Your task to perform on an android device: Go to privacy settings Image 0: 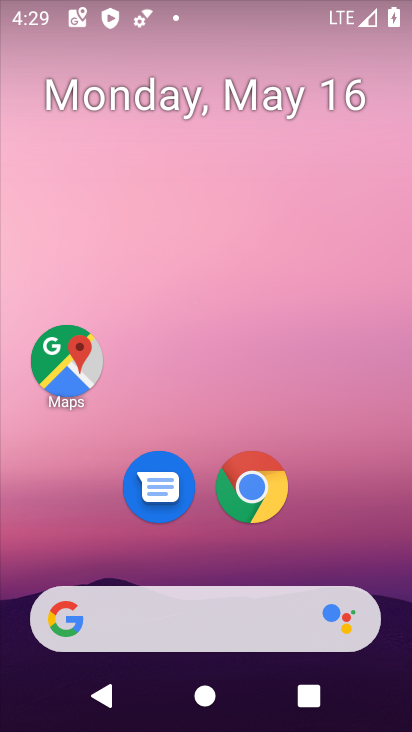
Step 0: drag from (404, 592) to (328, 171)
Your task to perform on an android device: Go to privacy settings Image 1: 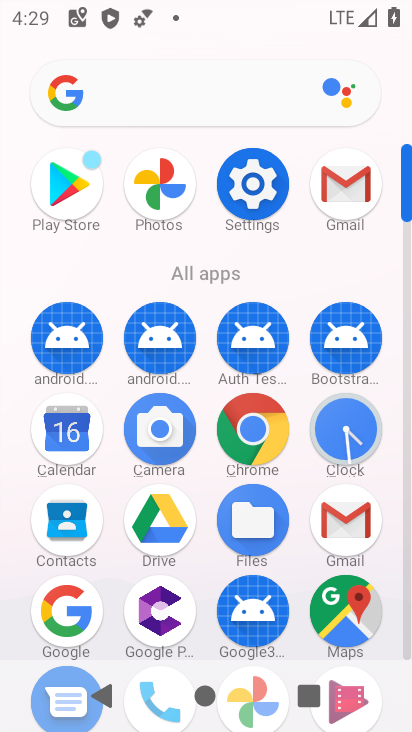
Step 1: click (407, 647)
Your task to perform on an android device: Go to privacy settings Image 2: 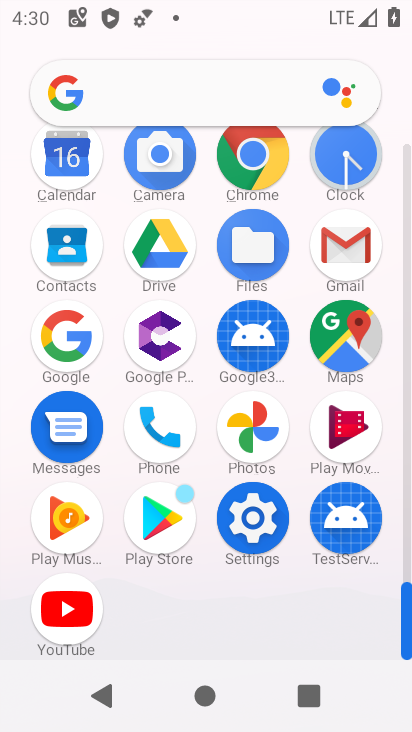
Step 2: click (254, 514)
Your task to perform on an android device: Go to privacy settings Image 3: 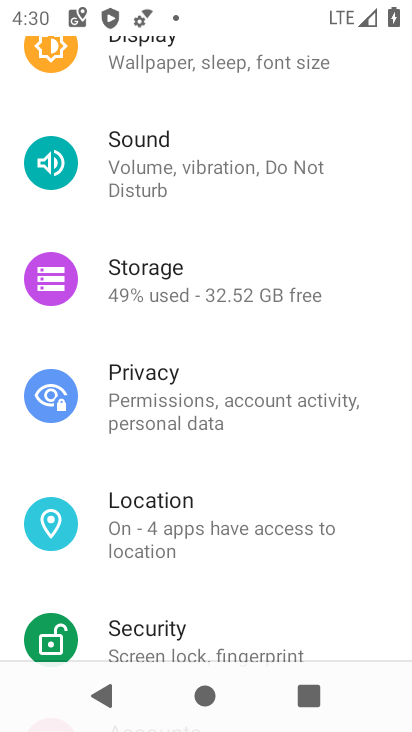
Step 3: click (155, 382)
Your task to perform on an android device: Go to privacy settings Image 4: 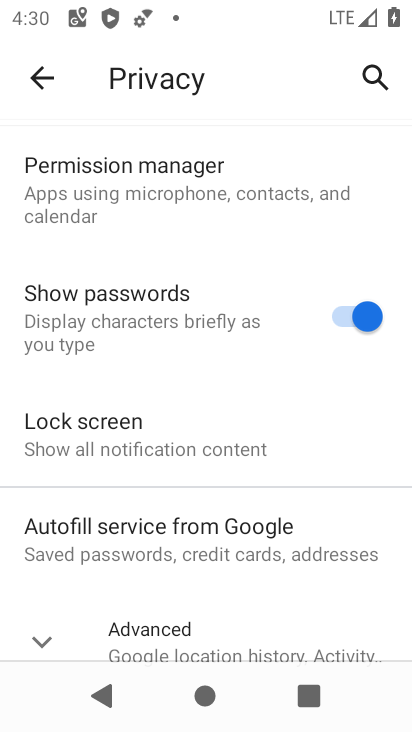
Step 4: drag from (208, 518) to (241, 251)
Your task to perform on an android device: Go to privacy settings Image 5: 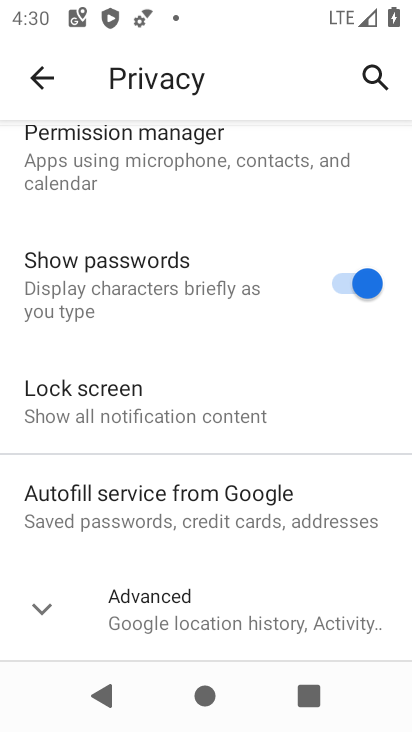
Step 5: click (45, 613)
Your task to perform on an android device: Go to privacy settings Image 6: 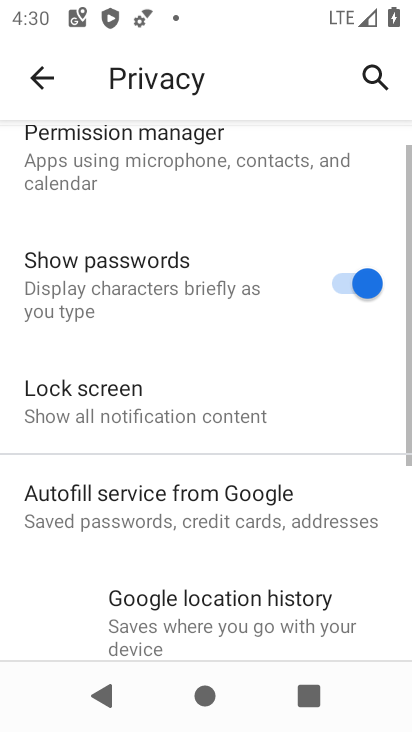
Step 6: task complete